Your task to perform on an android device: Is it going to rain today? Image 0: 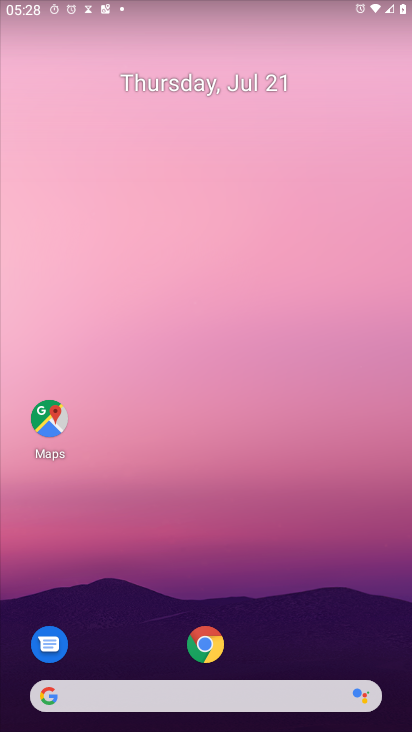
Step 0: press home button
Your task to perform on an android device: Is it going to rain today? Image 1: 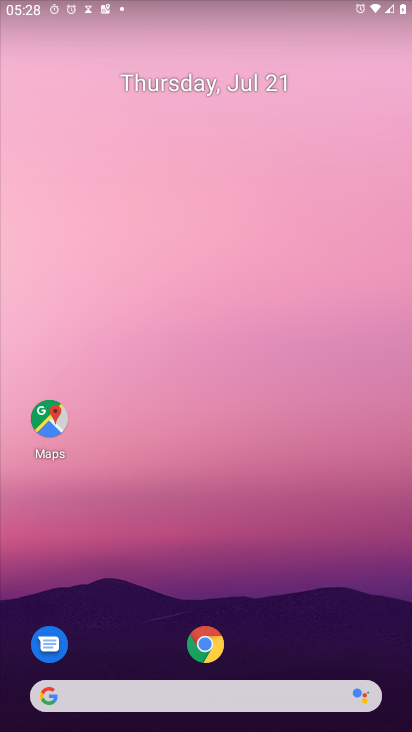
Step 1: click (46, 703)
Your task to perform on an android device: Is it going to rain today? Image 2: 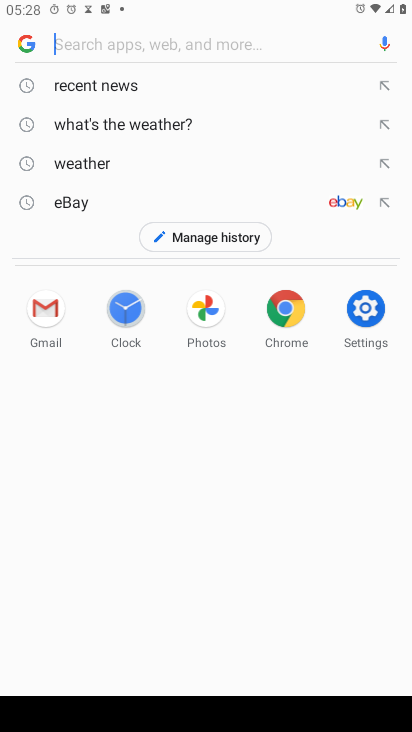
Step 2: type "Is it going to rain today?"
Your task to perform on an android device: Is it going to rain today? Image 3: 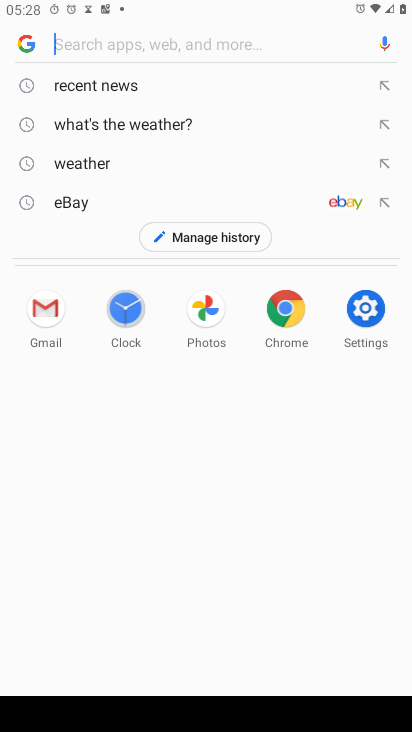
Step 3: click (83, 46)
Your task to perform on an android device: Is it going to rain today? Image 4: 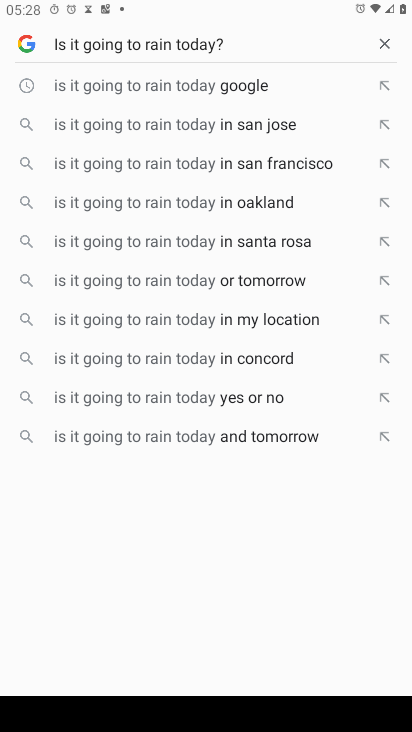
Step 4: press enter
Your task to perform on an android device: Is it going to rain today? Image 5: 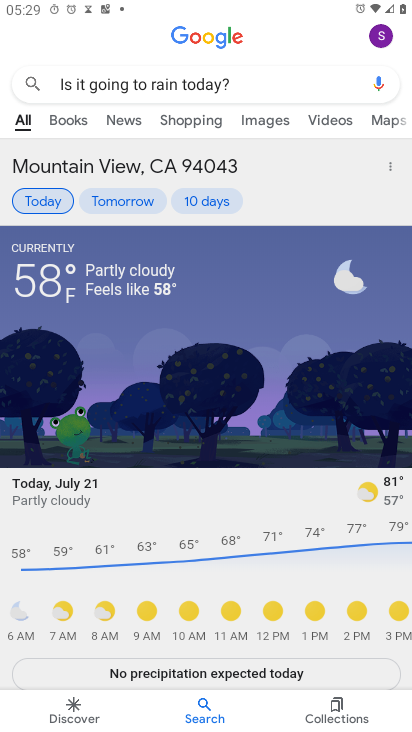
Step 5: task complete